Your task to perform on an android device: Empty the shopping cart on target.com. Add logitech g pro to the cart on target.com, then select checkout. Image 0: 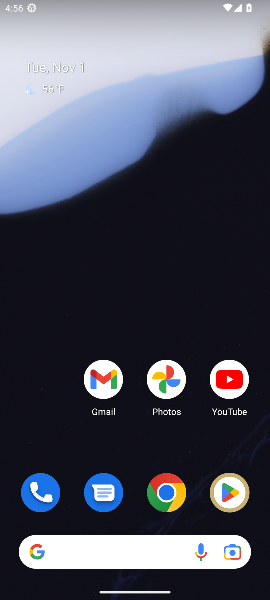
Step 0: click (171, 501)
Your task to perform on an android device: Empty the shopping cart on target.com. Add logitech g pro to the cart on target.com, then select checkout. Image 1: 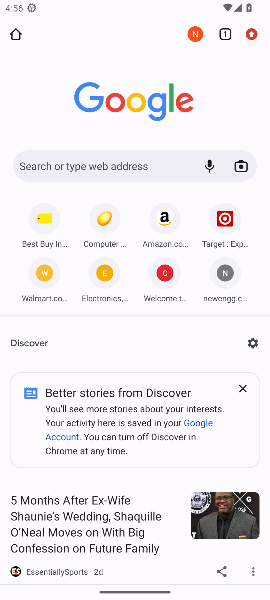
Step 1: click (127, 167)
Your task to perform on an android device: Empty the shopping cart on target.com. Add logitech g pro to the cart on target.com, then select checkout. Image 2: 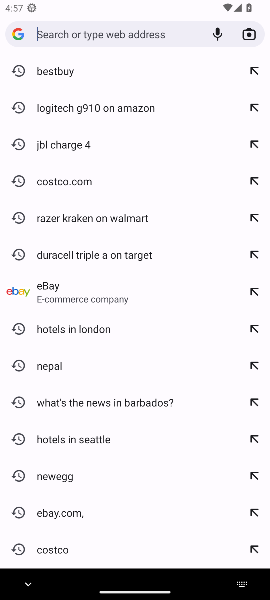
Step 2: type "target.com."
Your task to perform on an android device: Empty the shopping cart on target.com. Add logitech g pro to the cart on target.com, then select checkout. Image 3: 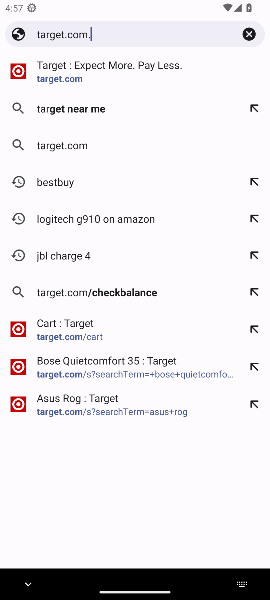
Step 3: type ""
Your task to perform on an android device: Empty the shopping cart on target.com. Add logitech g pro to the cart on target.com, then select checkout. Image 4: 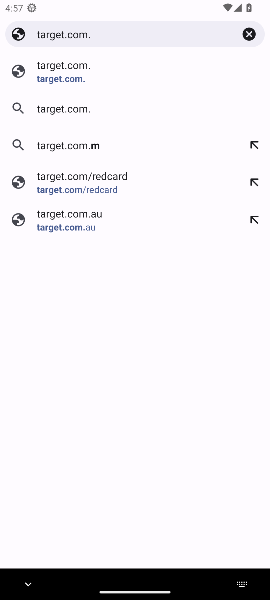
Step 4: click (70, 191)
Your task to perform on an android device: Empty the shopping cart on target.com. Add logitech g pro to the cart on target.com, then select checkout. Image 5: 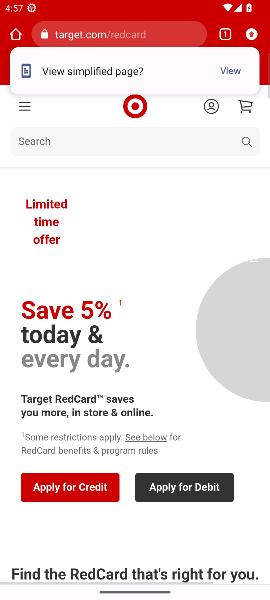
Step 5: click (84, 139)
Your task to perform on an android device: Empty the shopping cart on target.com. Add logitech g pro to the cart on target.com, then select checkout. Image 6: 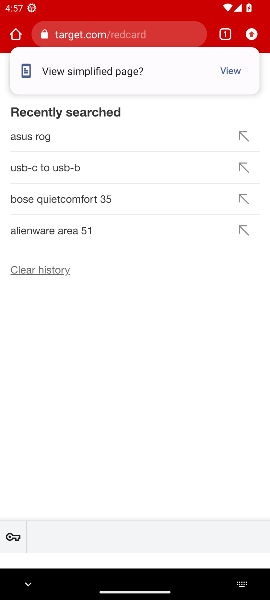
Step 6: click (204, 409)
Your task to perform on an android device: Empty the shopping cart on target.com. Add logitech g pro to the cart on target.com, then select checkout. Image 7: 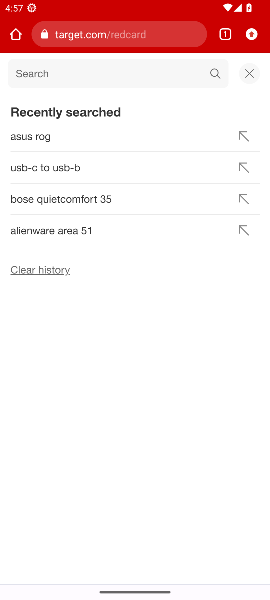
Step 7: click (107, 73)
Your task to perform on an android device: Empty the shopping cart on target.com. Add logitech g pro to the cart on target.com, then select checkout. Image 8: 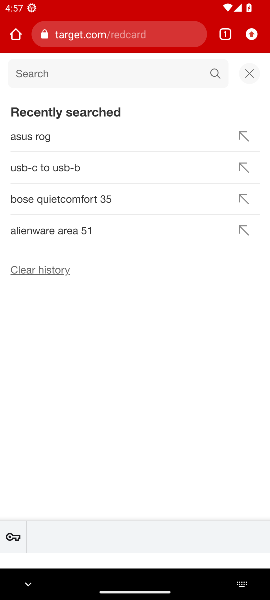
Step 8: type " logitech g pro"
Your task to perform on an android device: Empty the shopping cart on target.com. Add logitech g pro to the cart on target.com, then select checkout. Image 9: 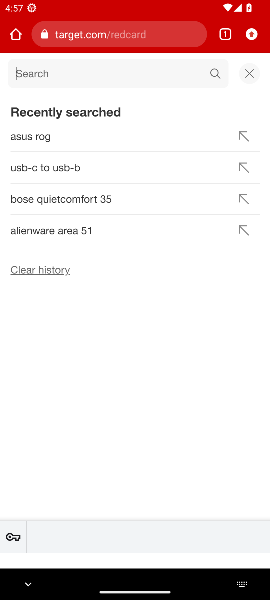
Step 9: type ""
Your task to perform on an android device: Empty the shopping cart on target.com. Add logitech g pro to the cart on target.com, then select checkout. Image 10: 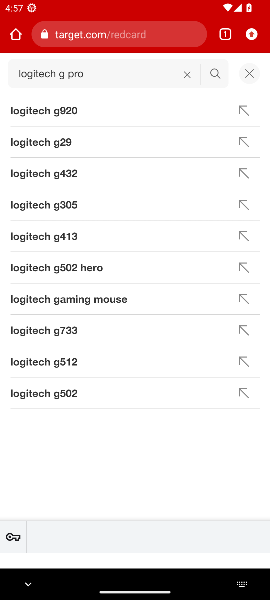
Step 10: press enter
Your task to perform on an android device: Empty the shopping cart on target.com. Add logitech g pro to the cart on target.com, then select checkout. Image 11: 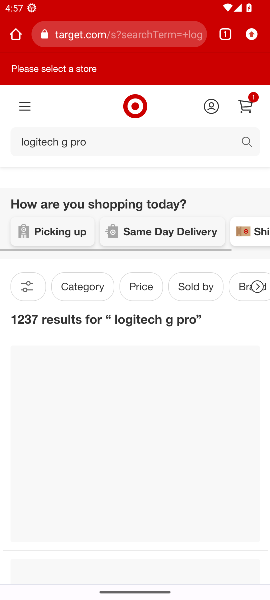
Step 11: drag from (155, 474) to (170, 178)
Your task to perform on an android device: Empty the shopping cart on target.com. Add logitech g pro to the cart on target.com, then select checkout. Image 12: 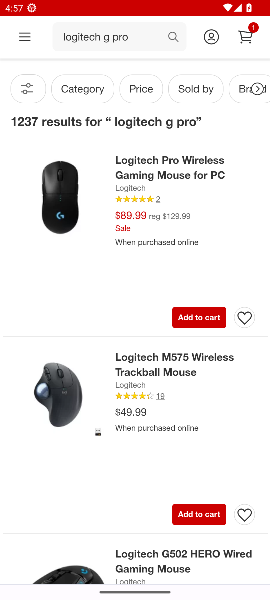
Step 12: click (154, 175)
Your task to perform on an android device: Empty the shopping cart on target.com. Add logitech g pro to the cart on target.com, then select checkout. Image 13: 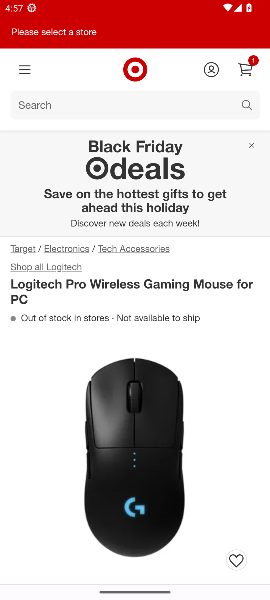
Step 13: drag from (213, 520) to (220, 332)
Your task to perform on an android device: Empty the shopping cart on target.com. Add logitech g pro to the cart on target.com, then select checkout. Image 14: 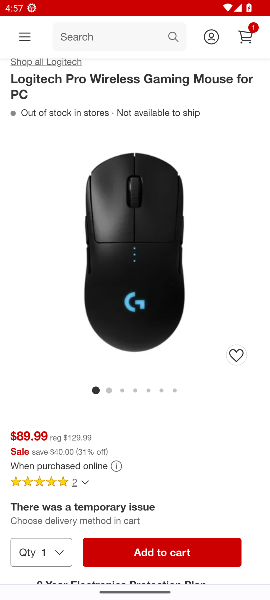
Step 14: click (188, 547)
Your task to perform on an android device: Empty the shopping cart on target.com. Add logitech g pro to the cart on target.com, then select checkout. Image 15: 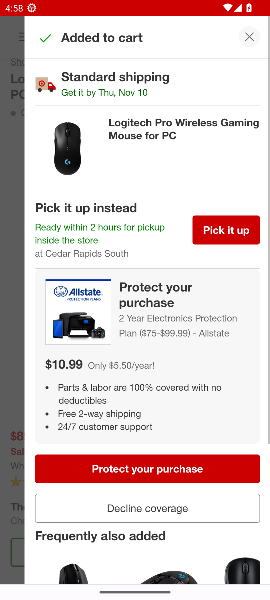
Step 15: click (152, 495)
Your task to perform on an android device: Empty the shopping cart on target.com. Add logitech g pro to the cart on target.com, then select checkout. Image 16: 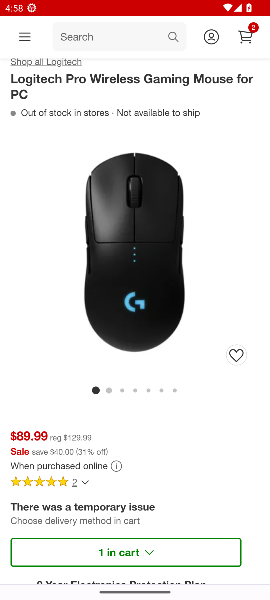
Step 16: drag from (151, 497) to (188, 365)
Your task to perform on an android device: Empty the shopping cart on target.com. Add logitech g pro to the cart on target.com, then select checkout. Image 17: 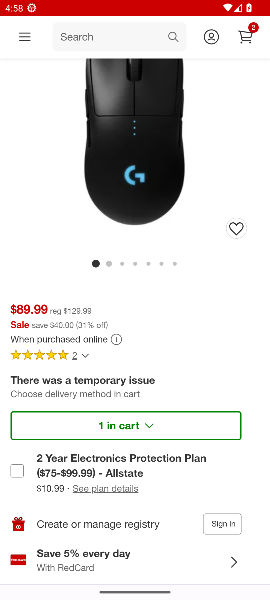
Step 17: drag from (198, 161) to (49, 163)
Your task to perform on an android device: Empty the shopping cart on target.com. Add logitech g pro to the cart on target.com, then select checkout. Image 18: 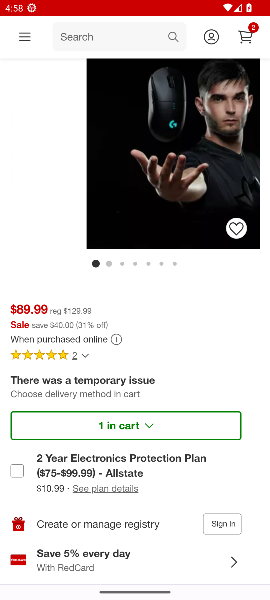
Step 18: drag from (175, 166) to (58, 170)
Your task to perform on an android device: Empty the shopping cart on target.com. Add logitech g pro to the cart on target.com, then select checkout. Image 19: 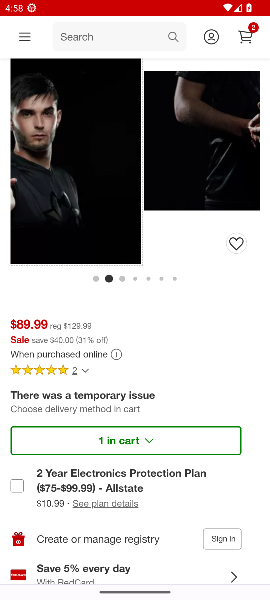
Step 19: drag from (156, 176) to (64, 176)
Your task to perform on an android device: Empty the shopping cart on target.com. Add logitech g pro to the cart on target.com, then select checkout. Image 20: 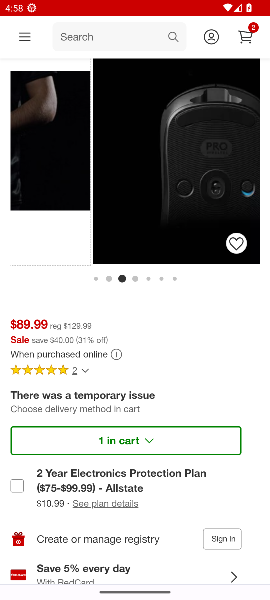
Step 20: drag from (168, 173) to (41, 176)
Your task to perform on an android device: Empty the shopping cart on target.com. Add logitech g pro to the cart on target.com, then select checkout. Image 21: 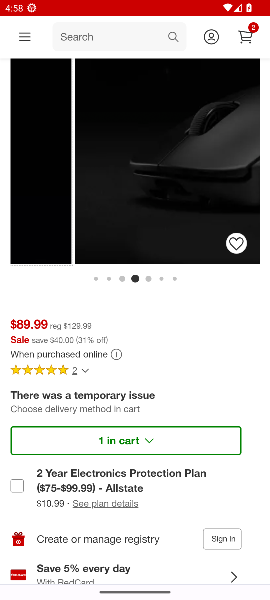
Step 21: drag from (177, 179) to (10, 184)
Your task to perform on an android device: Empty the shopping cart on target.com. Add logitech g pro to the cart on target.com, then select checkout. Image 22: 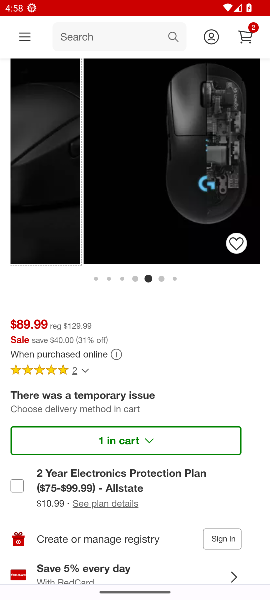
Step 22: drag from (184, 176) to (55, 180)
Your task to perform on an android device: Empty the shopping cart on target.com. Add logitech g pro to the cart on target.com, then select checkout. Image 23: 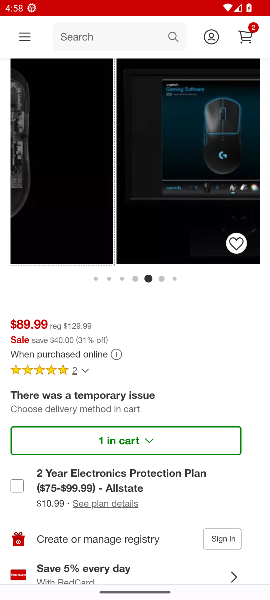
Step 23: drag from (169, 176) to (31, 175)
Your task to perform on an android device: Empty the shopping cart on target.com. Add logitech g pro to the cart on target.com, then select checkout. Image 24: 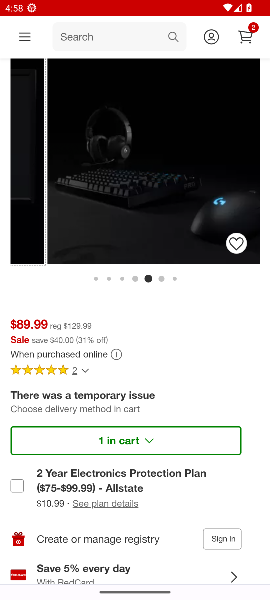
Step 24: drag from (155, 175) to (38, 177)
Your task to perform on an android device: Empty the shopping cart on target.com. Add logitech g pro to the cart on target.com, then select checkout. Image 25: 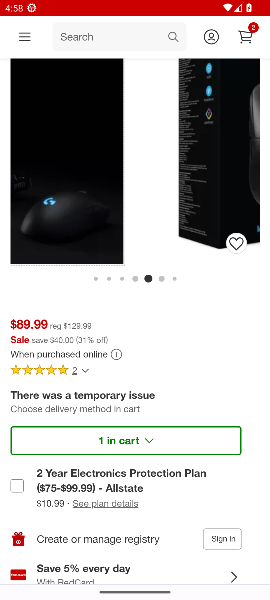
Step 25: drag from (179, 179) to (29, 192)
Your task to perform on an android device: Empty the shopping cart on target.com. Add logitech g pro to the cart on target.com, then select checkout. Image 26: 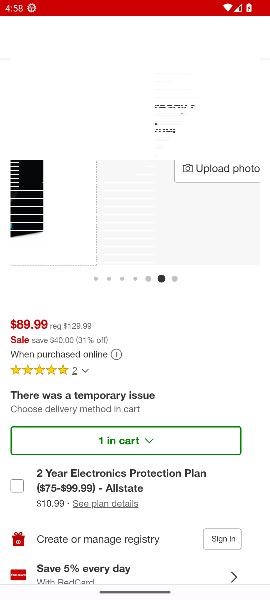
Step 26: drag from (132, 189) to (5, 189)
Your task to perform on an android device: Empty the shopping cart on target.com. Add logitech g pro to the cart on target.com, then select checkout. Image 27: 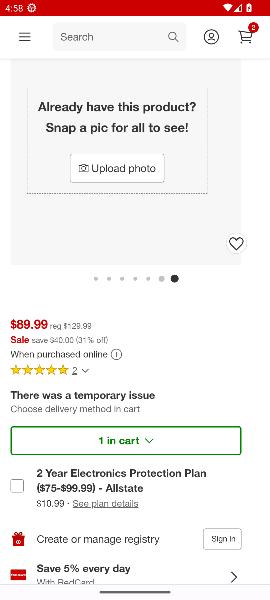
Step 27: drag from (156, 189) to (22, 185)
Your task to perform on an android device: Empty the shopping cart on target.com. Add logitech g pro to the cart on target.com, then select checkout. Image 28: 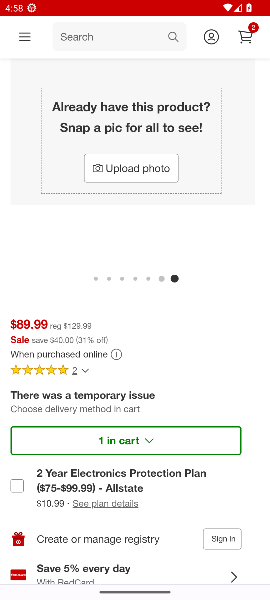
Step 28: drag from (154, 182) to (24, 182)
Your task to perform on an android device: Empty the shopping cart on target.com. Add logitech g pro to the cart on target.com, then select checkout. Image 29: 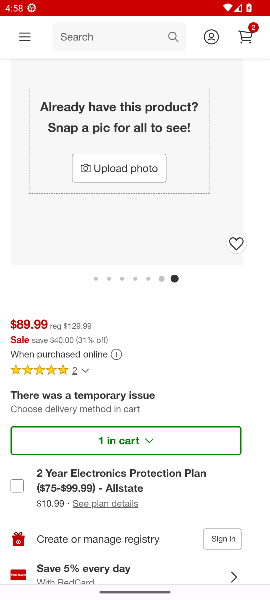
Step 29: drag from (138, 184) to (24, 187)
Your task to perform on an android device: Empty the shopping cart on target.com. Add logitech g pro to the cart on target.com, then select checkout. Image 30: 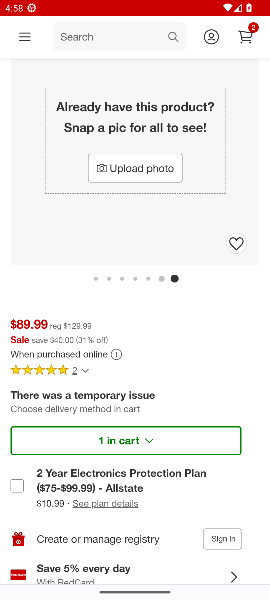
Step 30: drag from (62, 191) to (218, 202)
Your task to perform on an android device: Empty the shopping cart on target.com. Add logitech g pro to the cart on target.com, then select checkout. Image 31: 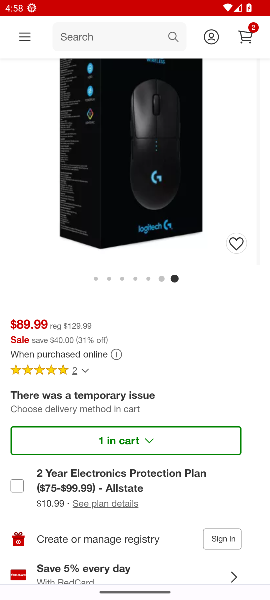
Step 31: drag from (70, 201) to (180, 205)
Your task to perform on an android device: Empty the shopping cart on target.com. Add logitech g pro to the cart on target.com, then select checkout. Image 32: 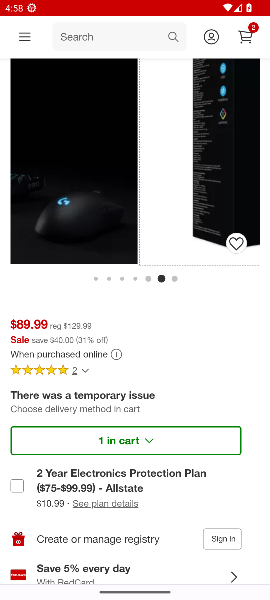
Step 32: drag from (72, 210) to (229, 216)
Your task to perform on an android device: Empty the shopping cart on target.com. Add logitech g pro to the cart on target.com, then select checkout. Image 33: 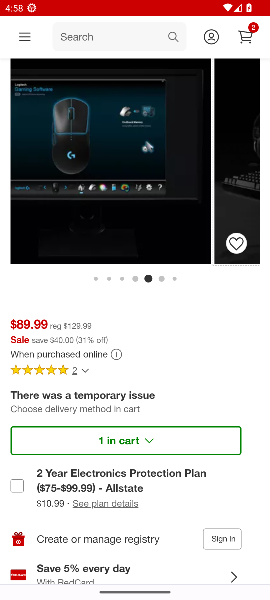
Step 33: drag from (29, 204) to (173, 201)
Your task to perform on an android device: Empty the shopping cart on target.com. Add logitech g pro to the cart on target.com, then select checkout. Image 34: 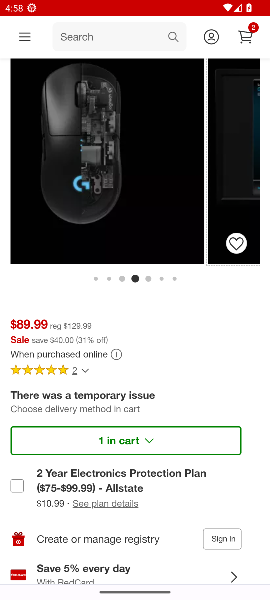
Step 34: drag from (79, 199) to (248, 209)
Your task to perform on an android device: Empty the shopping cart on target.com. Add logitech g pro to the cart on target.com, then select checkout. Image 35: 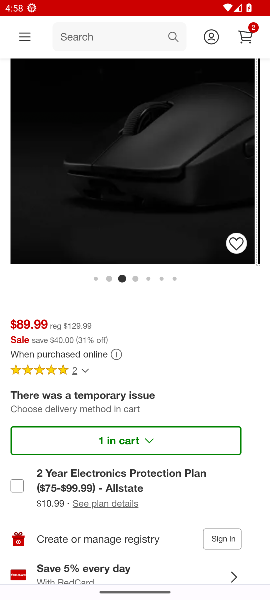
Step 35: drag from (93, 191) to (226, 205)
Your task to perform on an android device: Empty the shopping cart on target.com. Add logitech g pro to the cart on target.com, then select checkout. Image 36: 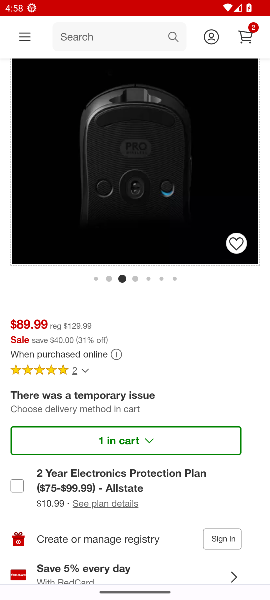
Step 36: drag from (119, 204) to (253, 208)
Your task to perform on an android device: Empty the shopping cart on target.com. Add logitech g pro to the cart on target.com, then select checkout. Image 37: 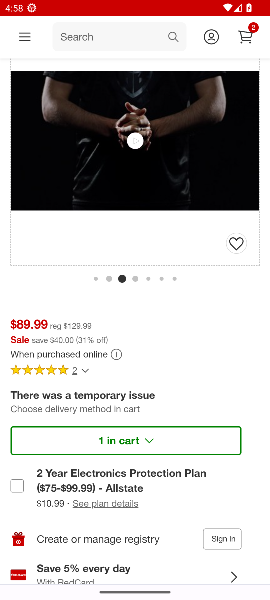
Step 37: drag from (107, 202) to (266, 197)
Your task to perform on an android device: Empty the shopping cart on target.com. Add logitech g pro to the cart on target.com, then select checkout. Image 38: 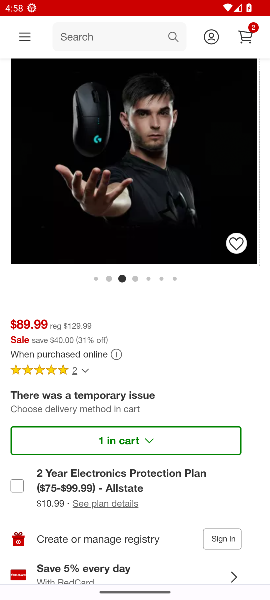
Step 38: drag from (60, 193) to (244, 196)
Your task to perform on an android device: Empty the shopping cart on target.com. Add logitech g pro to the cart on target.com, then select checkout. Image 39: 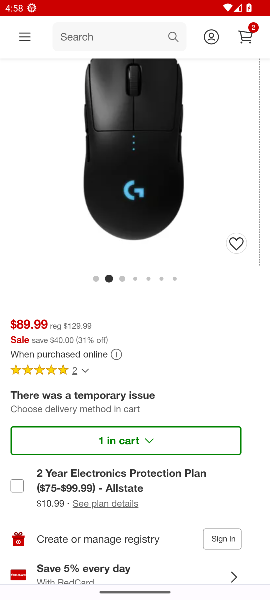
Step 39: drag from (80, 203) to (208, 200)
Your task to perform on an android device: Empty the shopping cart on target.com. Add logitech g pro to the cart on target.com, then select checkout. Image 40: 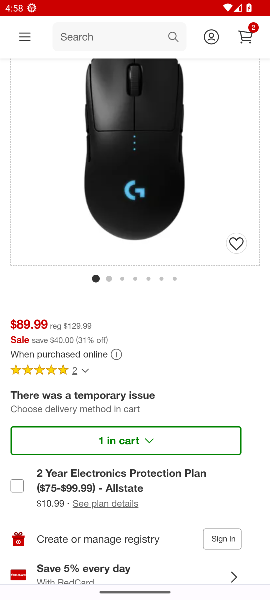
Step 40: drag from (93, 196) to (195, 192)
Your task to perform on an android device: Empty the shopping cart on target.com. Add logitech g pro to the cart on target.com, then select checkout. Image 41: 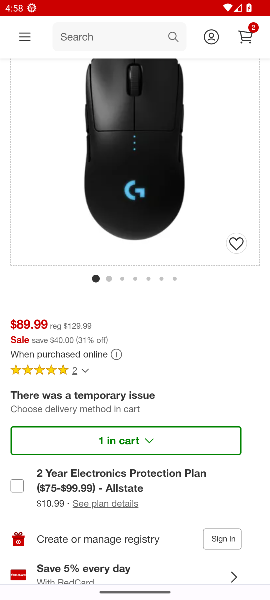
Step 41: click (249, 36)
Your task to perform on an android device: Empty the shopping cart on target.com. Add logitech g pro to the cart on target.com, then select checkout. Image 42: 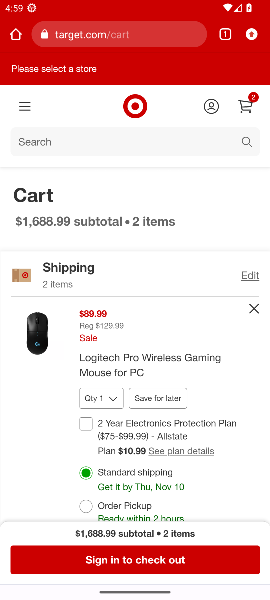
Step 42: drag from (213, 497) to (224, 273)
Your task to perform on an android device: Empty the shopping cart on target.com. Add logitech g pro to the cart on target.com, then select checkout. Image 43: 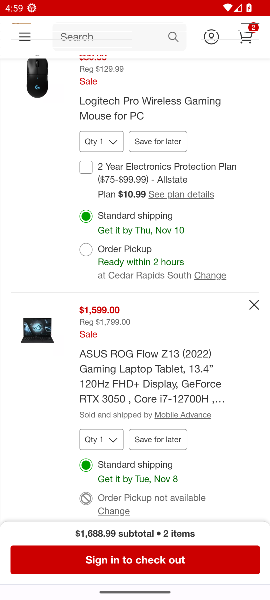
Step 43: click (253, 298)
Your task to perform on an android device: Empty the shopping cart on target.com. Add logitech g pro to the cart on target.com, then select checkout. Image 44: 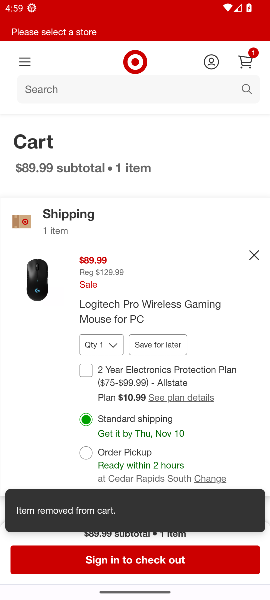
Step 44: drag from (228, 480) to (215, 285)
Your task to perform on an android device: Empty the shopping cart on target.com. Add logitech g pro to the cart on target.com, then select checkout. Image 45: 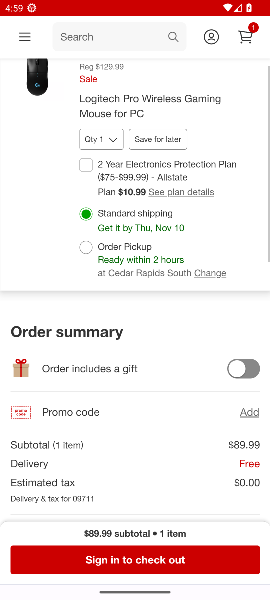
Step 45: drag from (173, 414) to (162, 274)
Your task to perform on an android device: Empty the shopping cart on target.com. Add logitech g pro to the cart on target.com, then select checkout. Image 46: 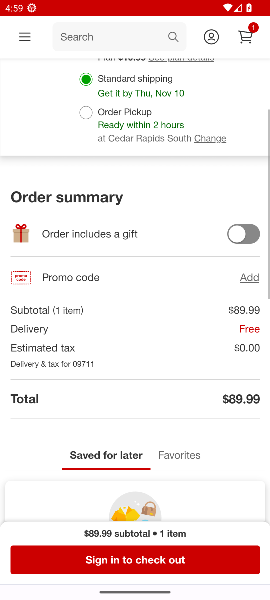
Step 46: drag from (127, 436) to (139, 202)
Your task to perform on an android device: Empty the shopping cart on target.com. Add logitech g pro to the cart on target.com, then select checkout. Image 47: 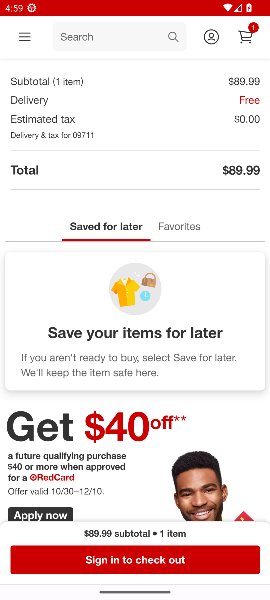
Step 47: drag from (131, 335) to (158, 203)
Your task to perform on an android device: Empty the shopping cart on target.com. Add logitech g pro to the cart on target.com, then select checkout. Image 48: 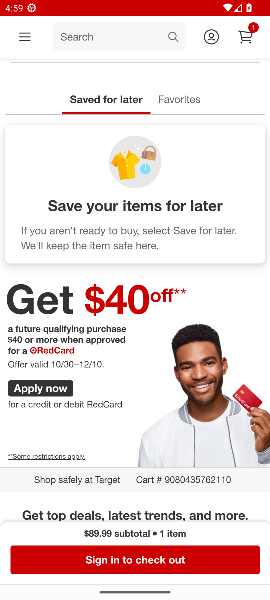
Step 48: click (187, 574)
Your task to perform on an android device: Empty the shopping cart on target.com. Add logitech g pro to the cart on target.com, then select checkout. Image 49: 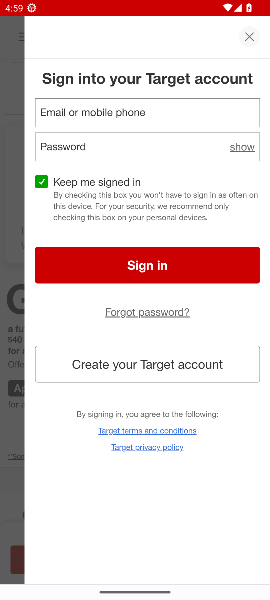
Step 49: click (250, 37)
Your task to perform on an android device: Empty the shopping cart on target.com. Add logitech g pro to the cart on target.com, then select checkout. Image 50: 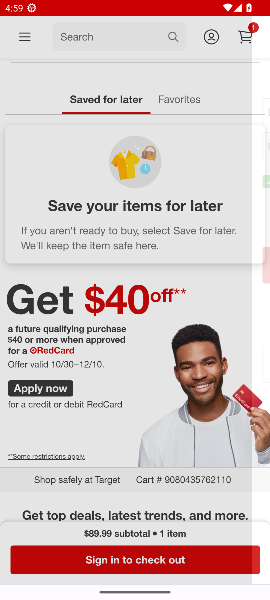
Step 50: task complete